Your task to perform on an android device: When is my next appointment? Image 0: 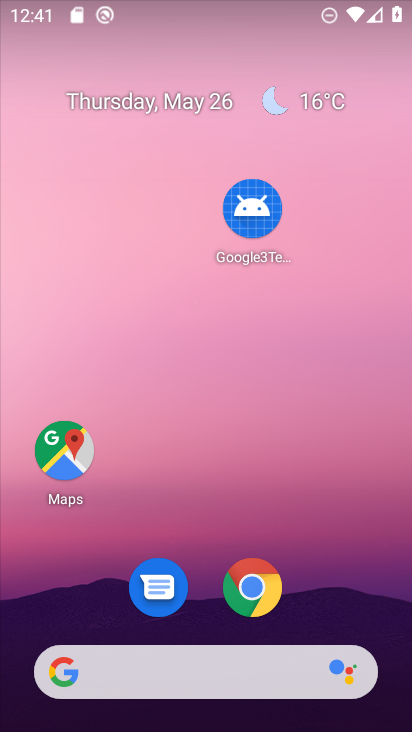
Step 0: drag from (228, 663) to (284, 168)
Your task to perform on an android device: When is my next appointment? Image 1: 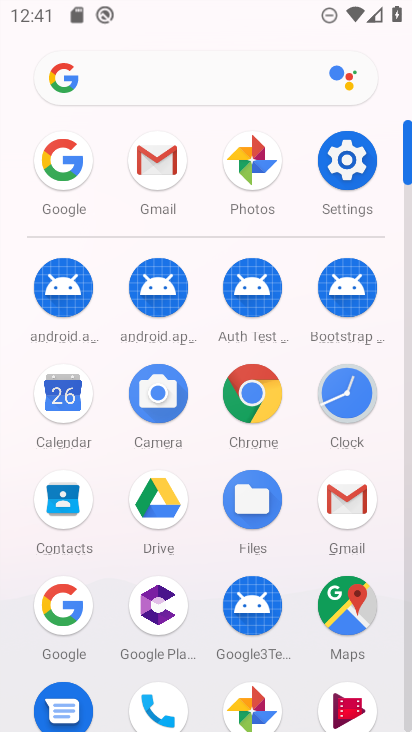
Step 1: click (63, 407)
Your task to perform on an android device: When is my next appointment? Image 2: 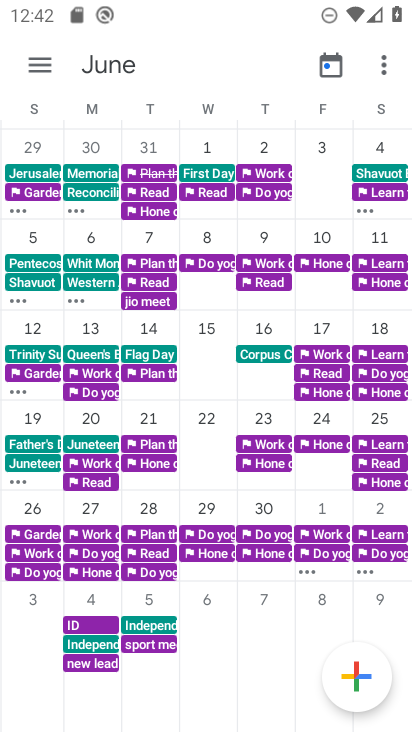
Step 2: click (28, 60)
Your task to perform on an android device: When is my next appointment? Image 3: 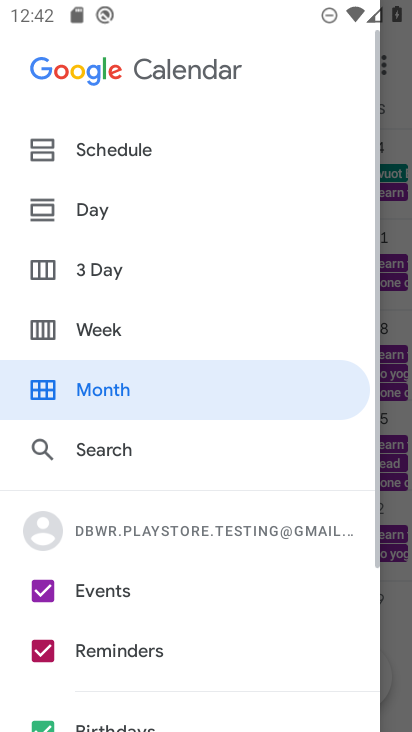
Step 3: click (102, 153)
Your task to perform on an android device: When is my next appointment? Image 4: 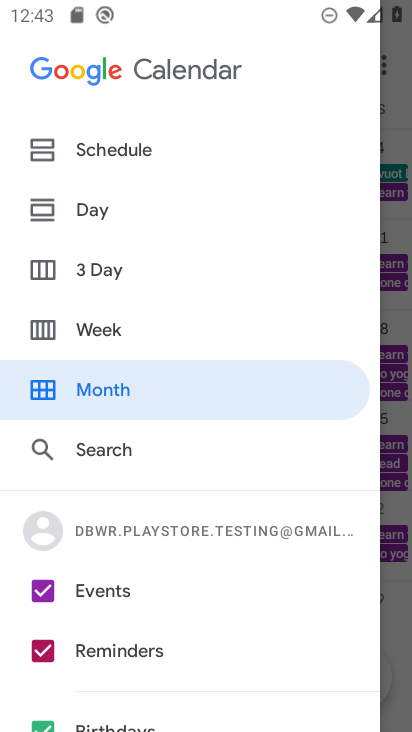
Step 4: click (92, 161)
Your task to perform on an android device: When is my next appointment? Image 5: 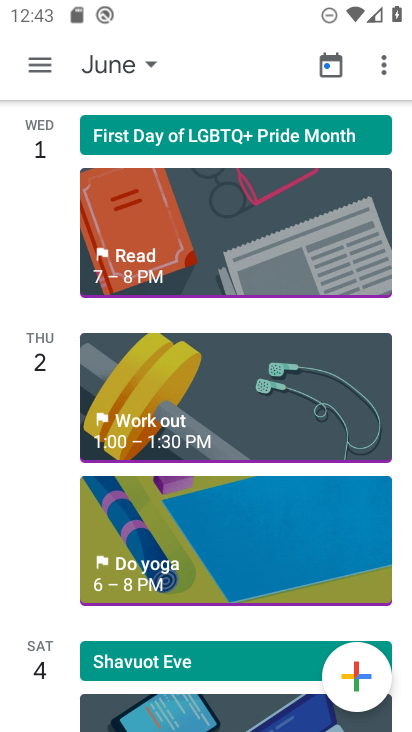
Step 5: task complete